Your task to perform on an android device: make emails show in primary in the gmail app Image 0: 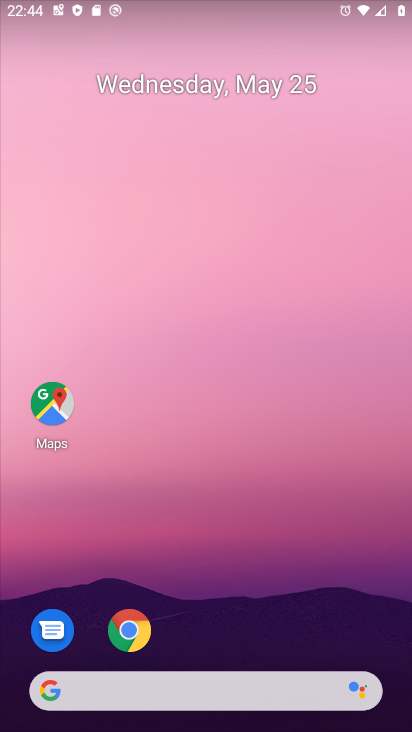
Step 0: drag from (207, 643) to (210, 160)
Your task to perform on an android device: make emails show in primary in the gmail app Image 1: 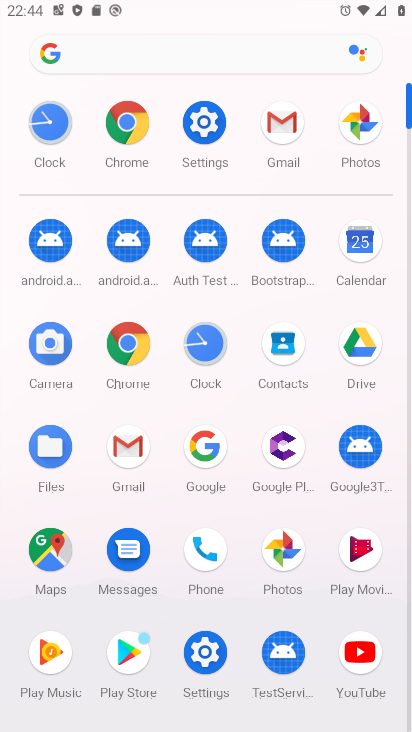
Step 1: click (277, 121)
Your task to perform on an android device: make emails show in primary in the gmail app Image 2: 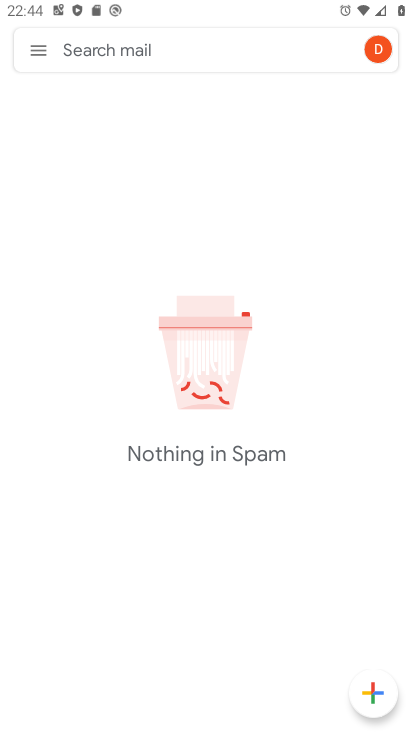
Step 2: click (32, 54)
Your task to perform on an android device: make emails show in primary in the gmail app Image 3: 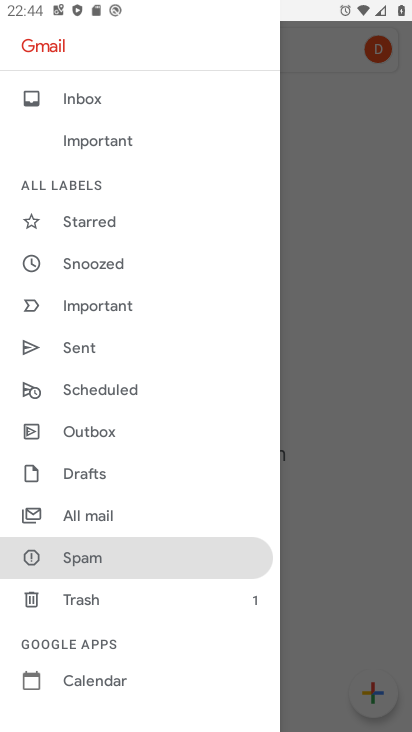
Step 3: drag from (119, 671) to (171, 266)
Your task to perform on an android device: make emails show in primary in the gmail app Image 4: 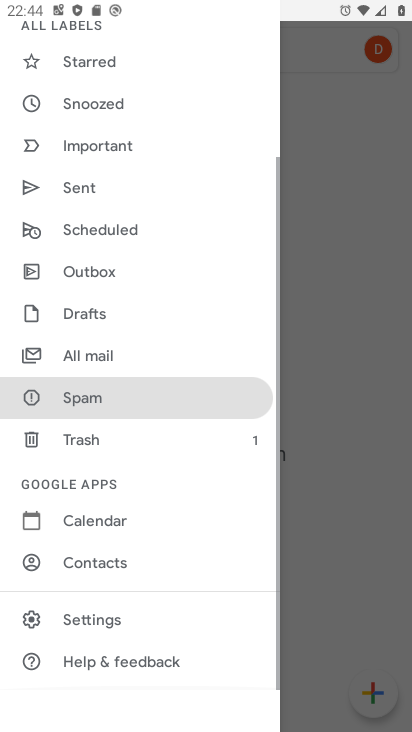
Step 4: click (112, 616)
Your task to perform on an android device: make emails show in primary in the gmail app Image 5: 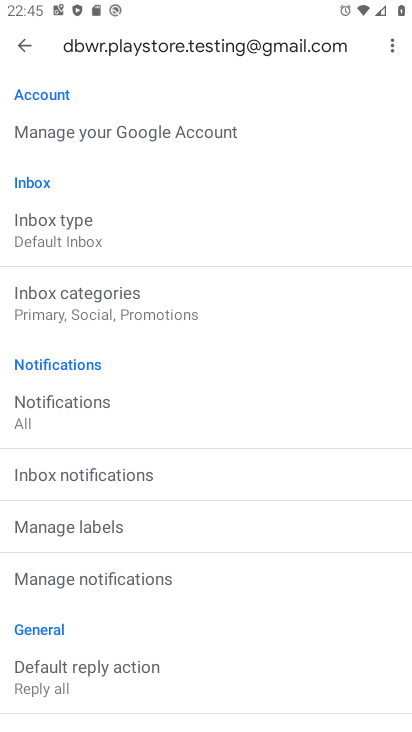
Step 5: click (104, 234)
Your task to perform on an android device: make emails show in primary in the gmail app Image 6: 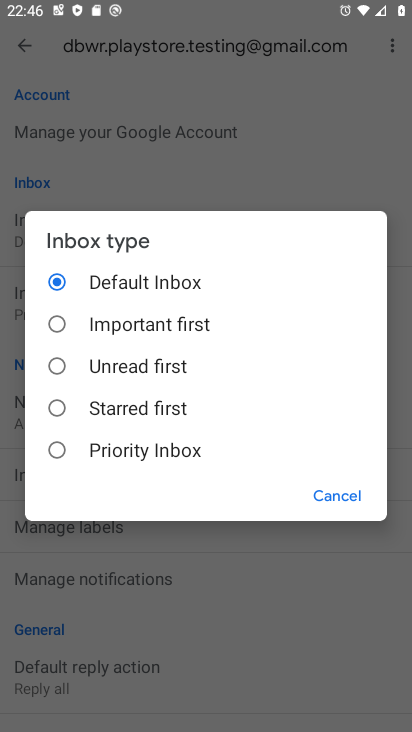
Step 6: task complete